Your task to perform on an android device: Check the news Image 0: 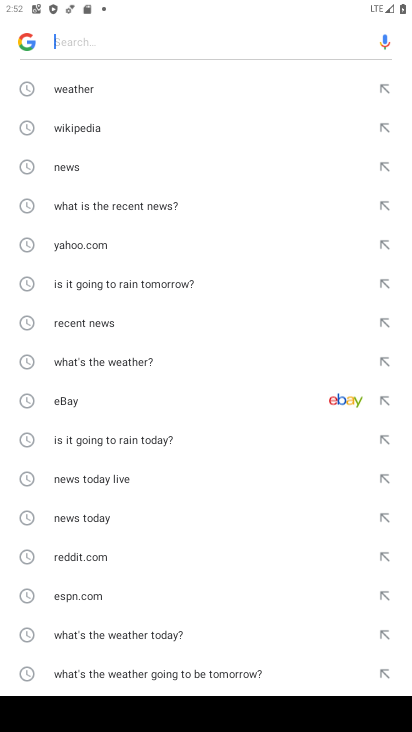
Step 0: click (71, 164)
Your task to perform on an android device: Check the news Image 1: 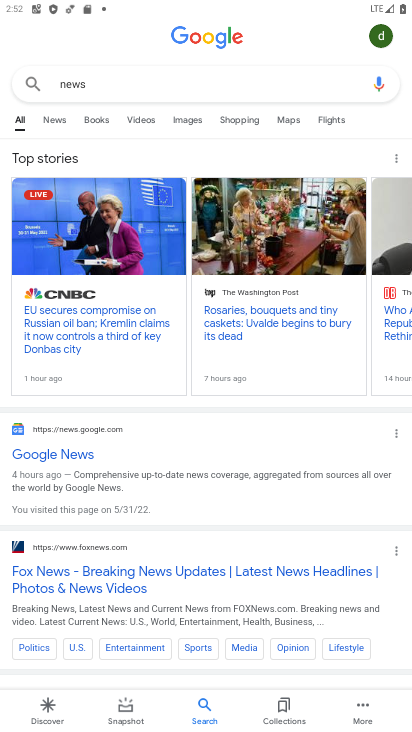
Step 1: task complete